Your task to perform on an android device: check out phone information Image 0: 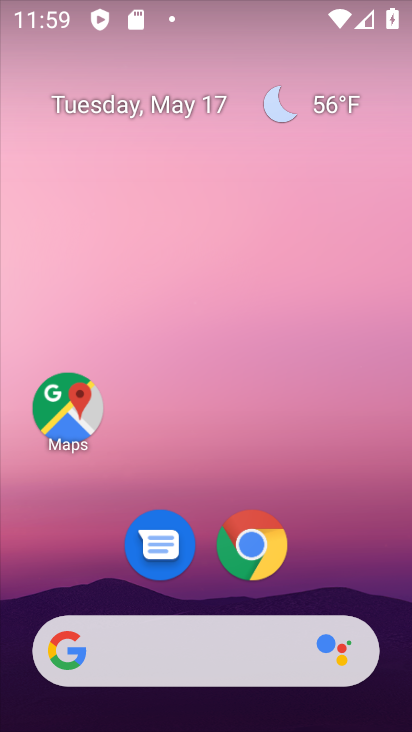
Step 0: drag from (328, 559) to (315, 59)
Your task to perform on an android device: check out phone information Image 1: 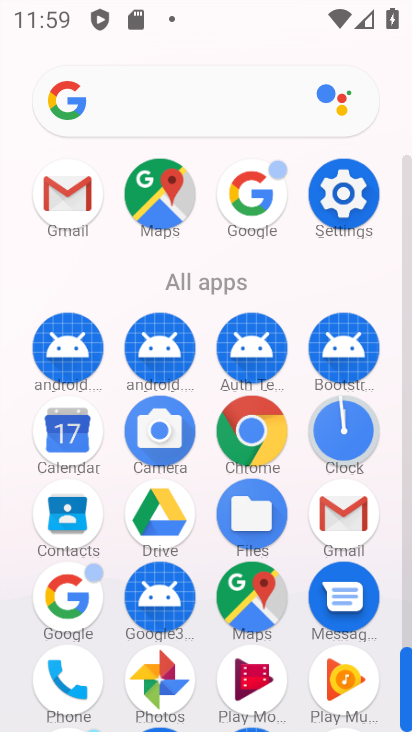
Step 1: click (340, 193)
Your task to perform on an android device: check out phone information Image 2: 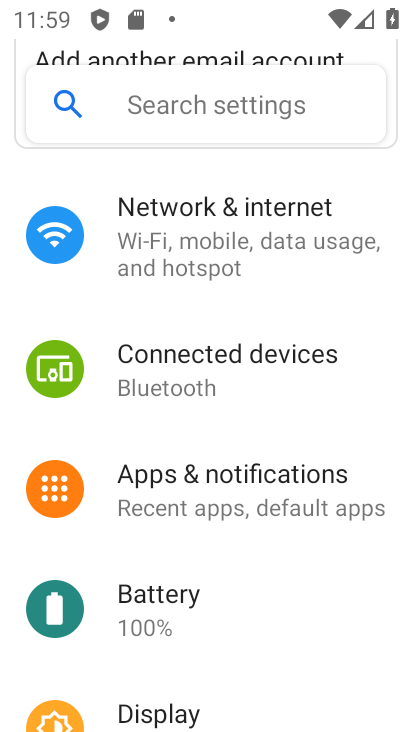
Step 2: drag from (206, 546) to (279, 405)
Your task to perform on an android device: check out phone information Image 3: 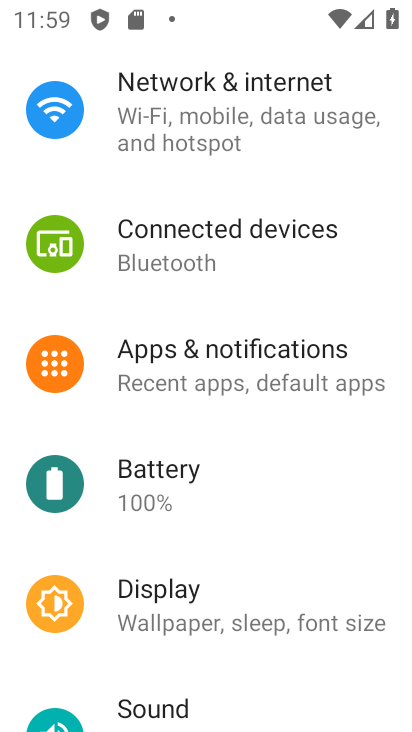
Step 3: drag from (214, 578) to (293, 395)
Your task to perform on an android device: check out phone information Image 4: 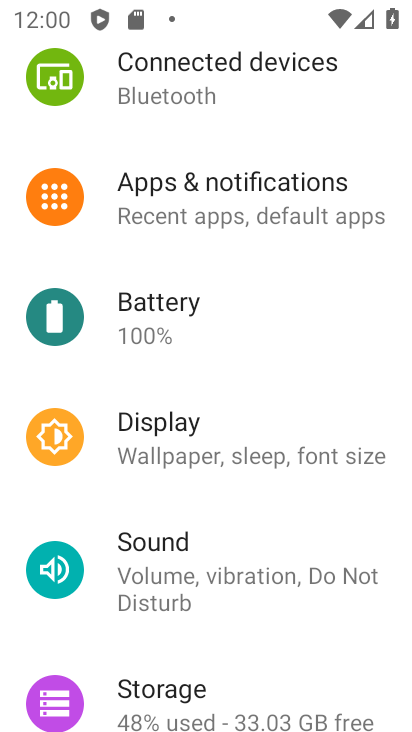
Step 4: drag from (228, 605) to (298, 474)
Your task to perform on an android device: check out phone information Image 5: 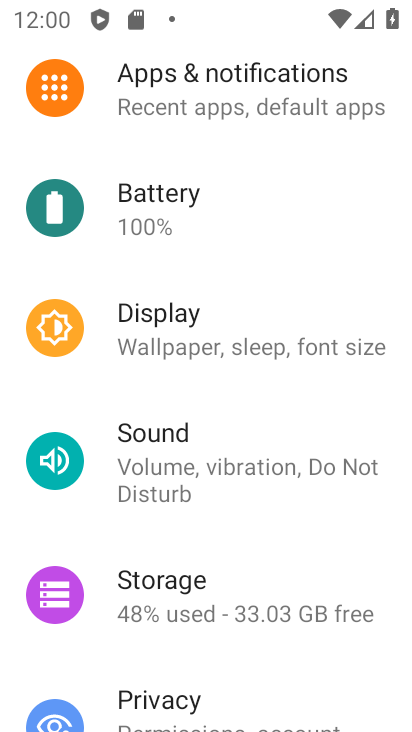
Step 5: drag from (211, 669) to (283, 519)
Your task to perform on an android device: check out phone information Image 6: 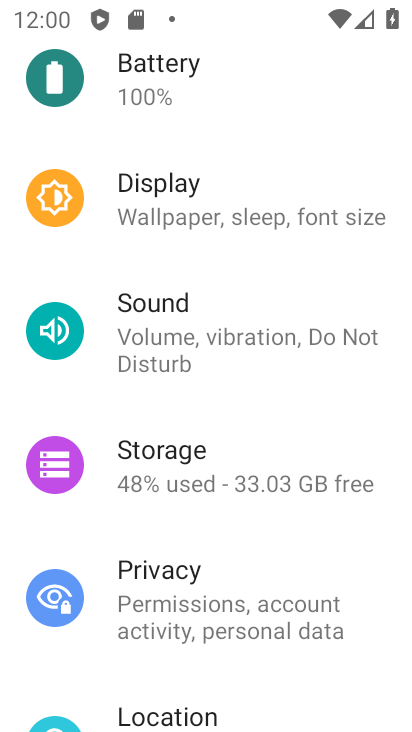
Step 6: drag from (213, 690) to (292, 573)
Your task to perform on an android device: check out phone information Image 7: 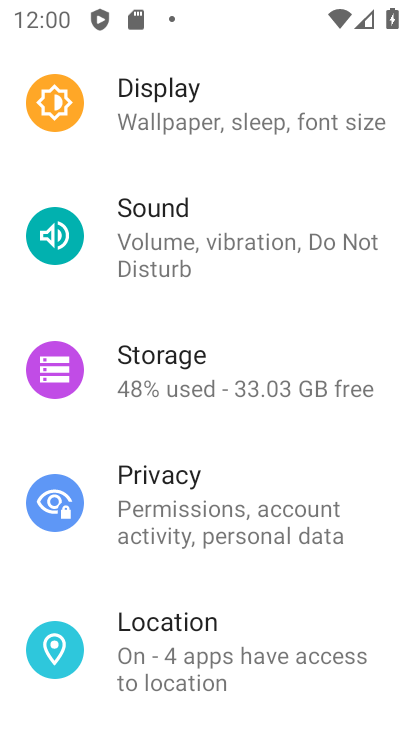
Step 7: drag from (228, 706) to (326, 550)
Your task to perform on an android device: check out phone information Image 8: 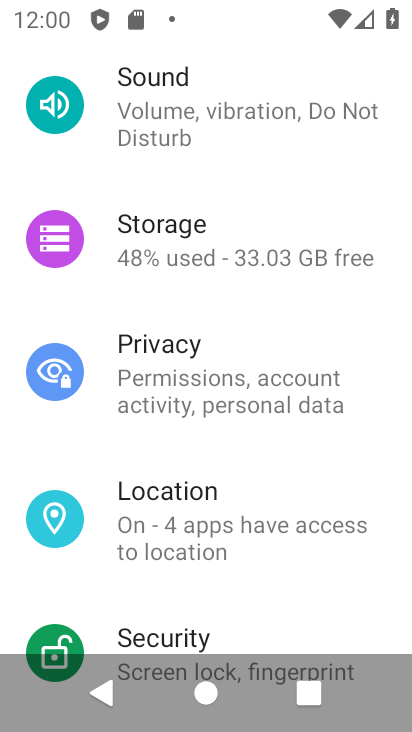
Step 8: drag from (269, 595) to (318, 369)
Your task to perform on an android device: check out phone information Image 9: 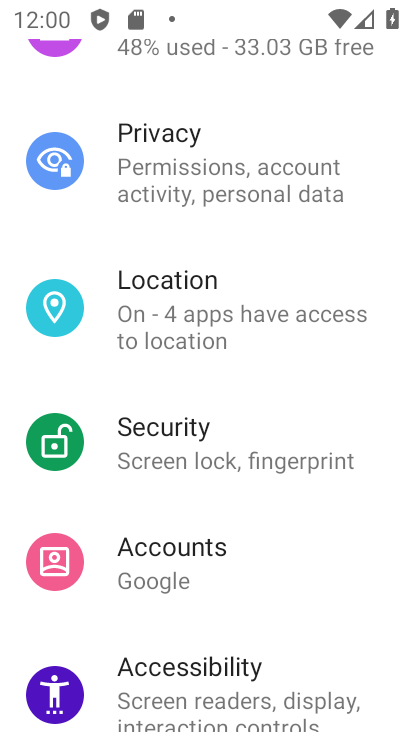
Step 9: drag from (254, 524) to (314, 329)
Your task to perform on an android device: check out phone information Image 10: 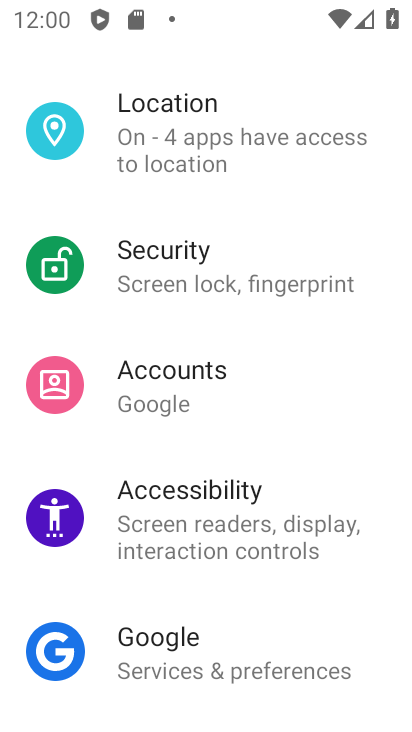
Step 10: drag from (283, 441) to (351, 263)
Your task to perform on an android device: check out phone information Image 11: 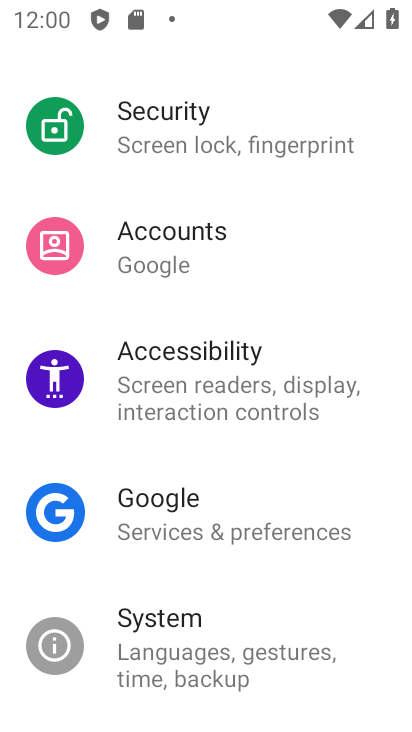
Step 11: drag from (233, 446) to (304, 250)
Your task to perform on an android device: check out phone information Image 12: 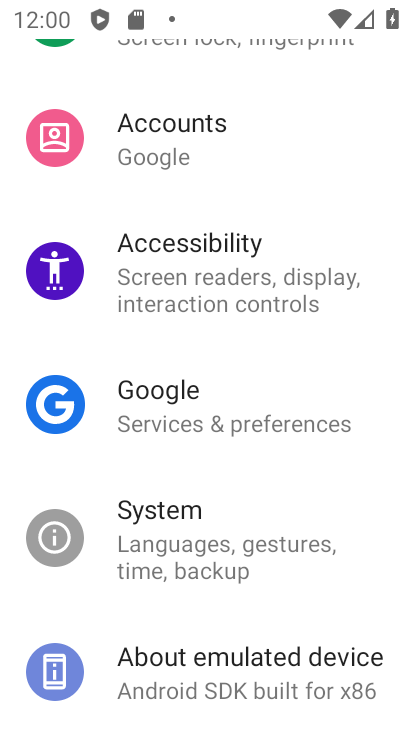
Step 12: drag from (227, 468) to (284, 337)
Your task to perform on an android device: check out phone information Image 13: 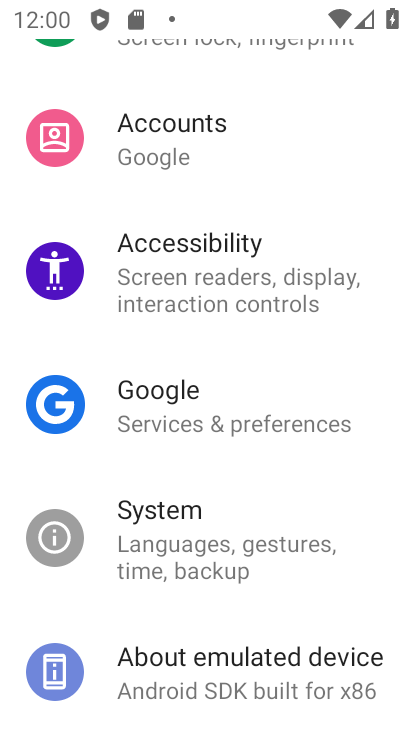
Step 13: click (226, 654)
Your task to perform on an android device: check out phone information Image 14: 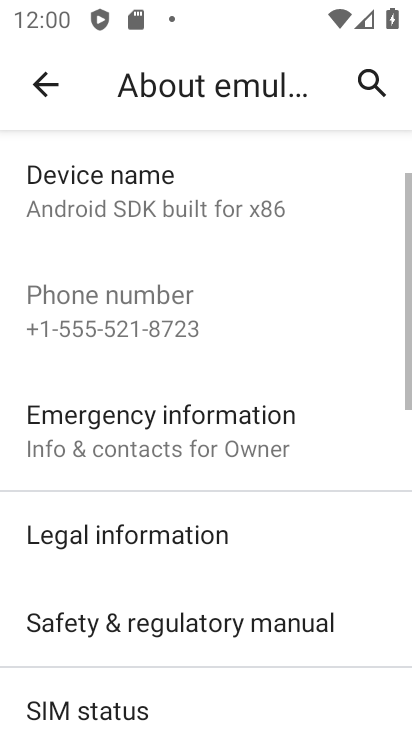
Step 14: task complete